Your task to perform on an android device: Is it going to rain today? Image 0: 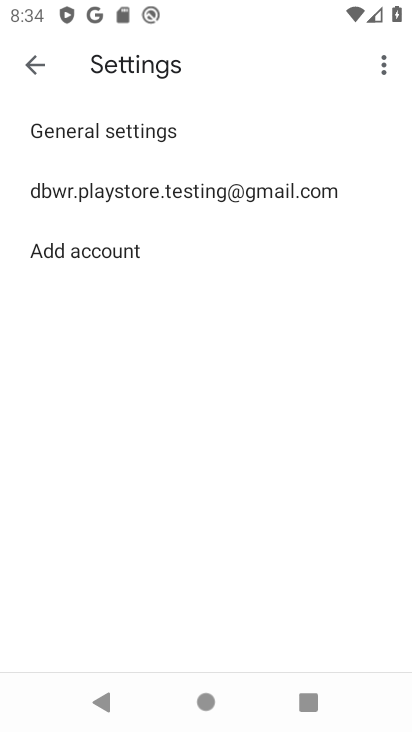
Step 0: press home button
Your task to perform on an android device: Is it going to rain today? Image 1: 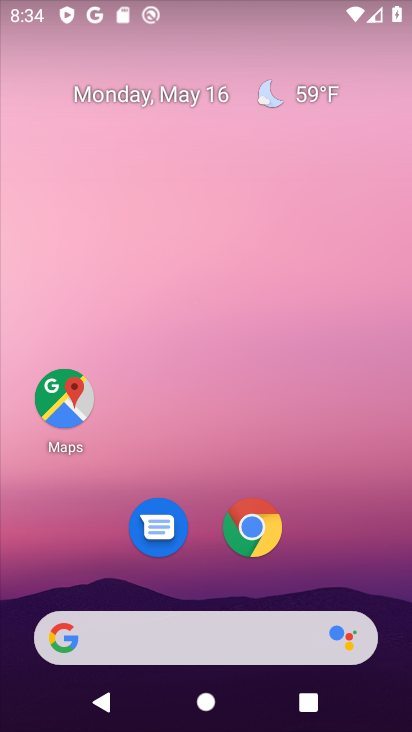
Step 1: drag from (297, 573) to (323, 276)
Your task to perform on an android device: Is it going to rain today? Image 2: 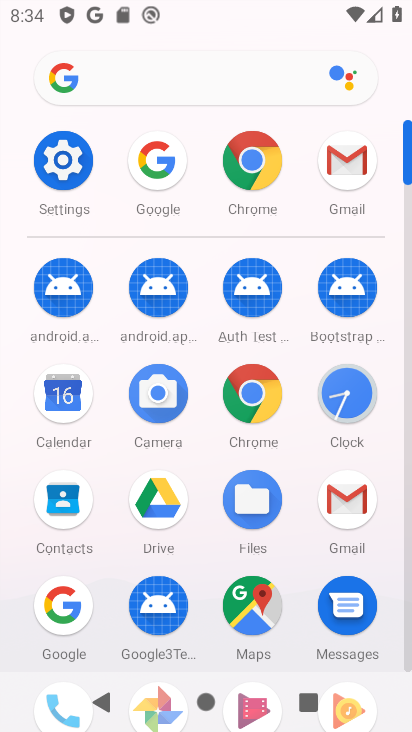
Step 2: click (238, 162)
Your task to perform on an android device: Is it going to rain today? Image 3: 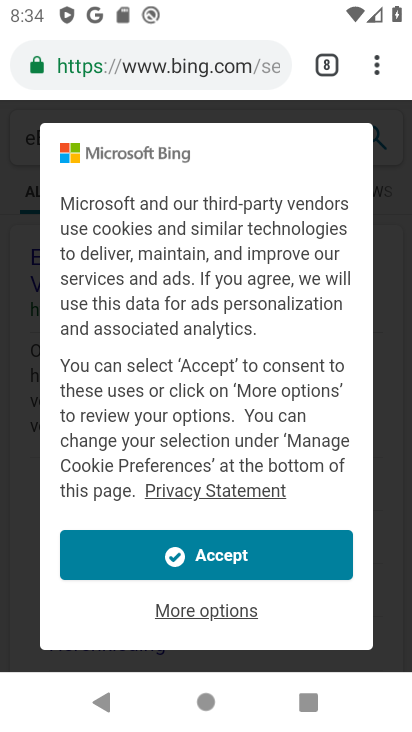
Step 3: click (223, 551)
Your task to perform on an android device: Is it going to rain today? Image 4: 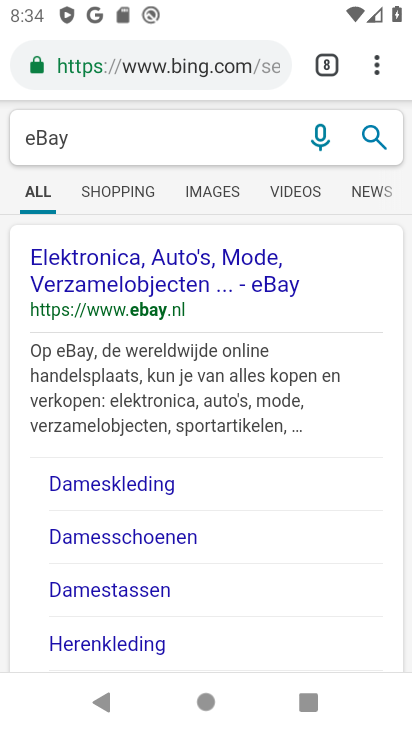
Step 4: click (359, 57)
Your task to perform on an android device: Is it going to rain today? Image 5: 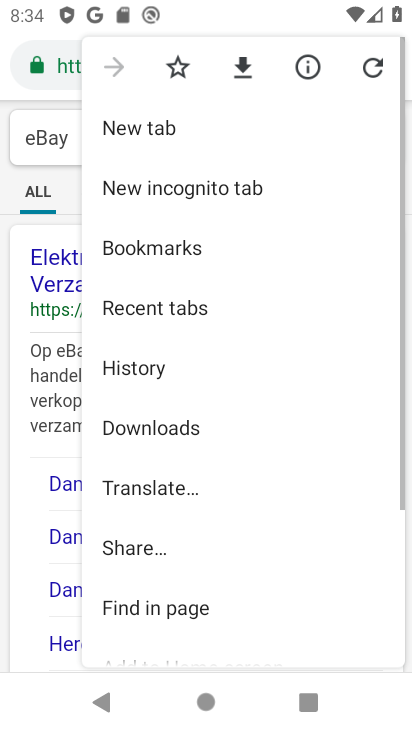
Step 5: click (180, 135)
Your task to perform on an android device: Is it going to rain today? Image 6: 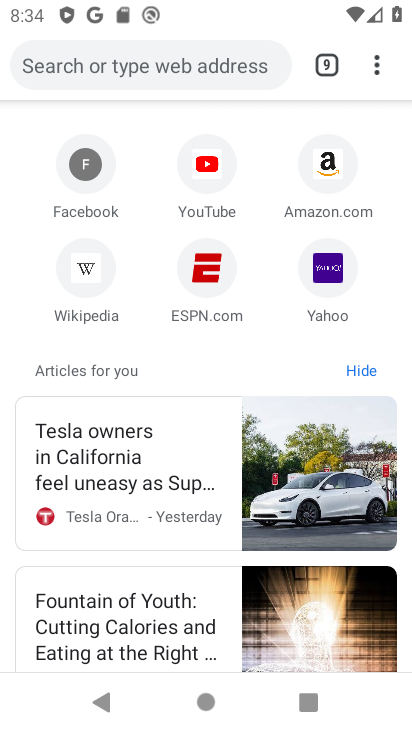
Step 6: click (188, 49)
Your task to perform on an android device: Is it going to rain today? Image 7: 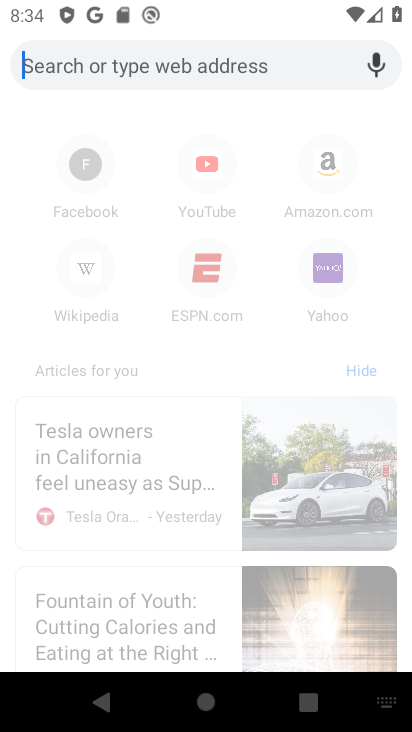
Step 7: type "Is it going to rain today?"
Your task to perform on an android device: Is it going to rain today? Image 8: 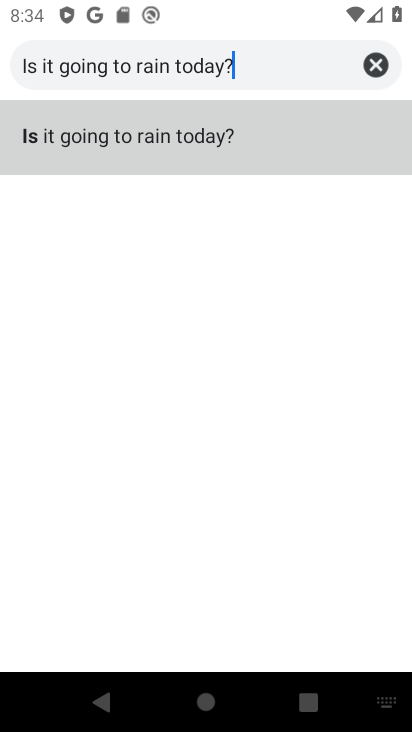
Step 8: click (48, 146)
Your task to perform on an android device: Is it going to rain today? Image 9: 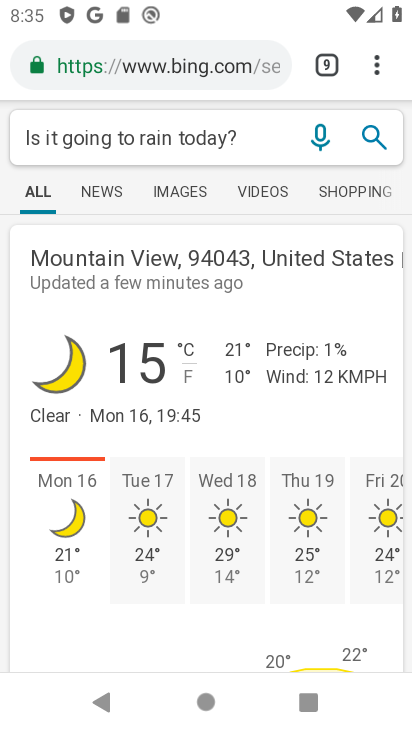
Step 9: task complete